Your task to perform on an android device: turn on sleep mode Image 0: 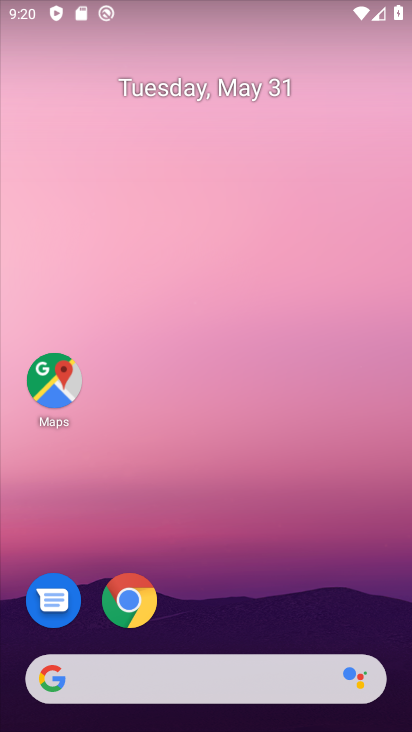
Step 0: drag from (243, 597) to (230, 206)
Your task to perform on an android device: turn on sleep mode Image 1: 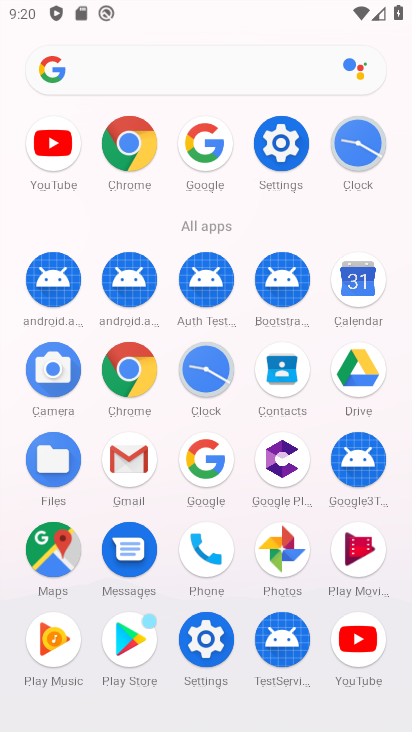
Step 1: click (279, 151)
Your task to perform on an android device: turn on sleep mode Image 2: 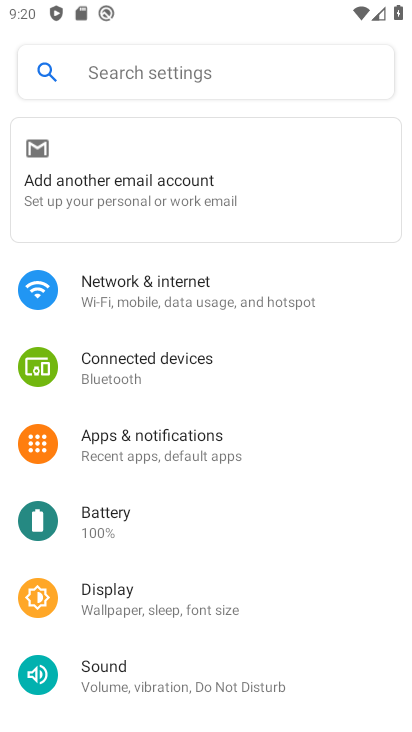
Step 2: task complete